Your task to perform on an android device: add a contact in the contacts app Image 0: 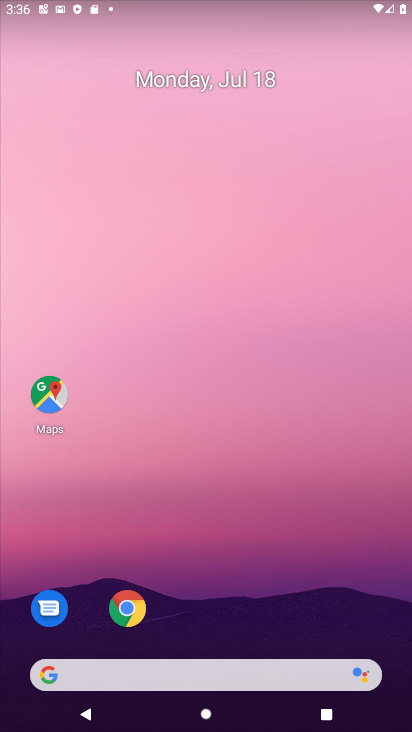
Step 0: drag from (279, 627) to (255, 110)
Your task to perform on an android device: add a contact in the contacts app Image 1: 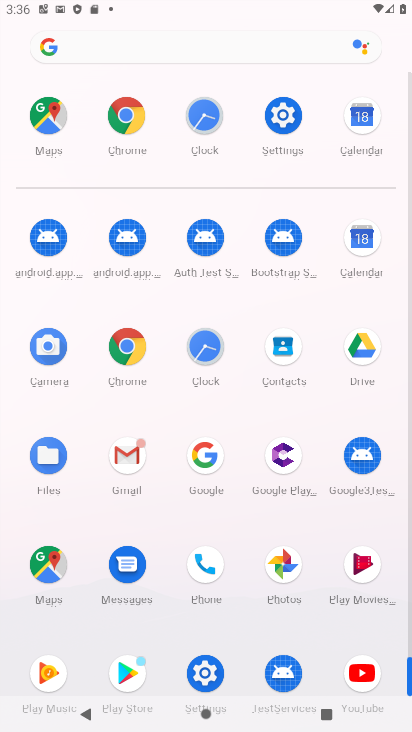
Step 1: click (290, 367)
Your task to perform on an android device: add a contact in the contacts app Image 2: 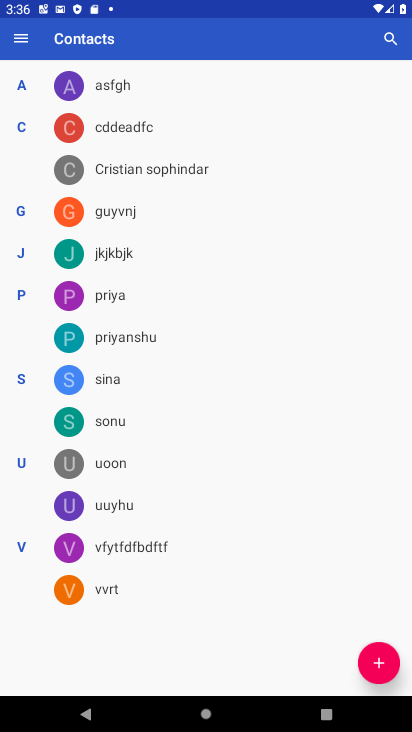
Step 2: click (381, 678)
Your task to perform on an android device: add a contact in the contacts app Image 3: 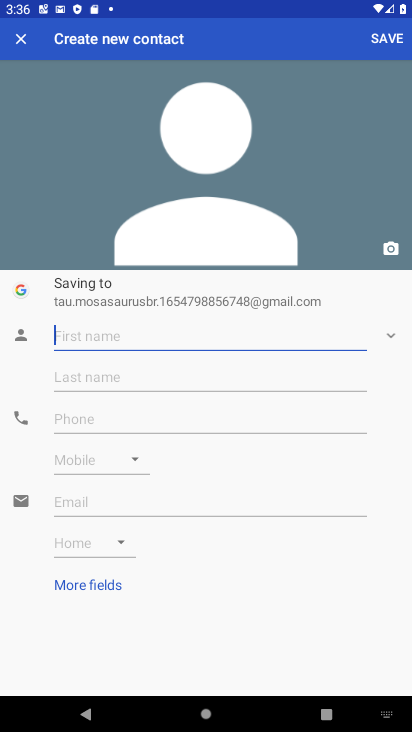
Step 3: type "likutjrydh"
Your task to perform on an android device: add a contact in the contacts app Image 4: 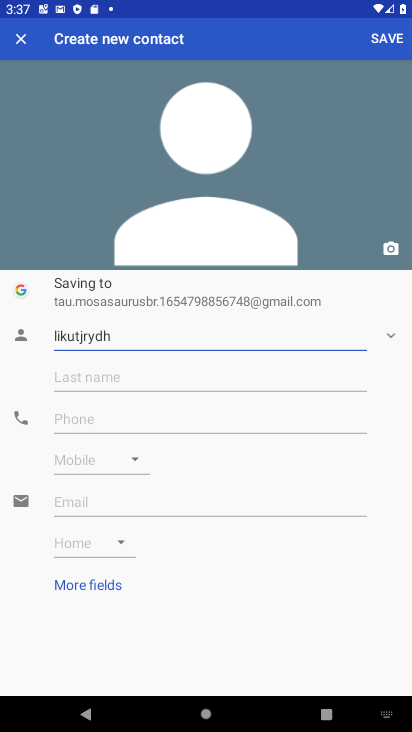
Step 4: click (136, 421)
Your task to perform on an android device: add a contact in the contacts app Image 5: 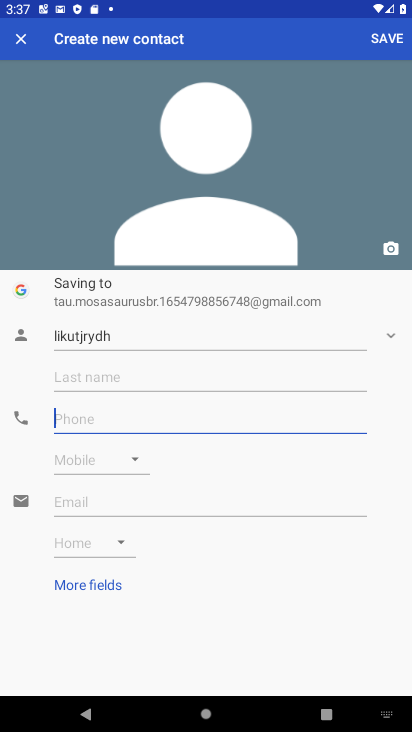
Step 5: type "0-9876543"
Your task to perform on an android device: add a contact in the contacts app Image 6: 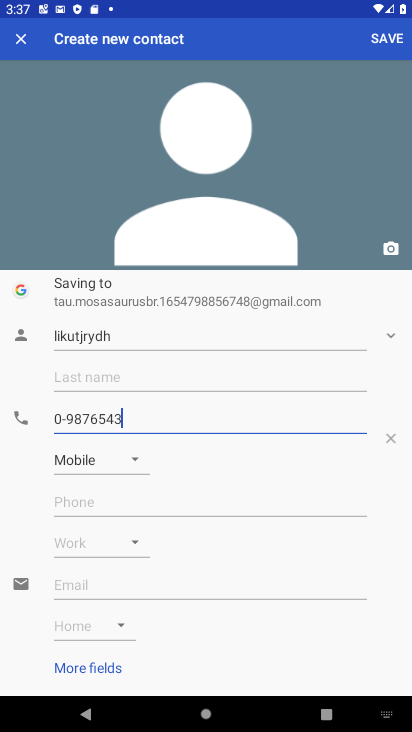
Step 6: click (380, 36)
Your task to perform on an android device: add a contact in the contacts app Image 7: 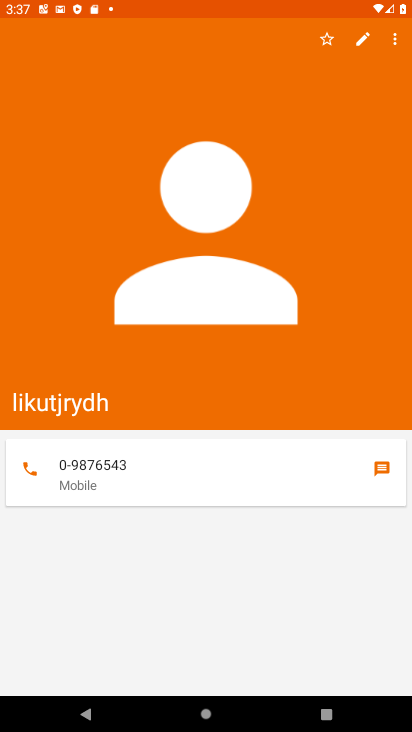
Step 7: task complete